Your task to perform on an android device: Go to eBay Image 0: 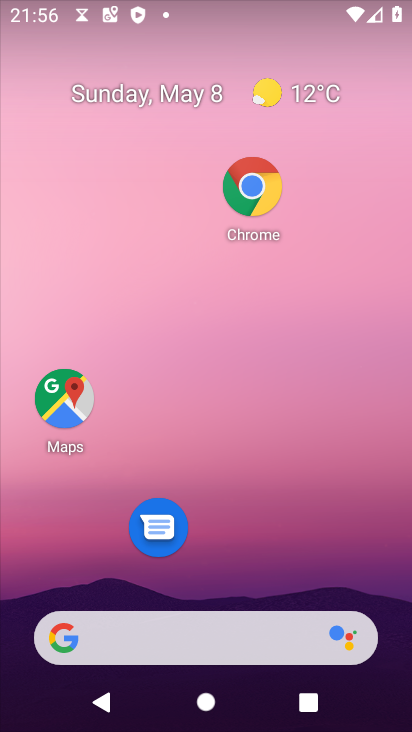
Step 0: drag from (337, 323) to (337, 249)
Your task to perform on an android device: Go to eBay Image 1: 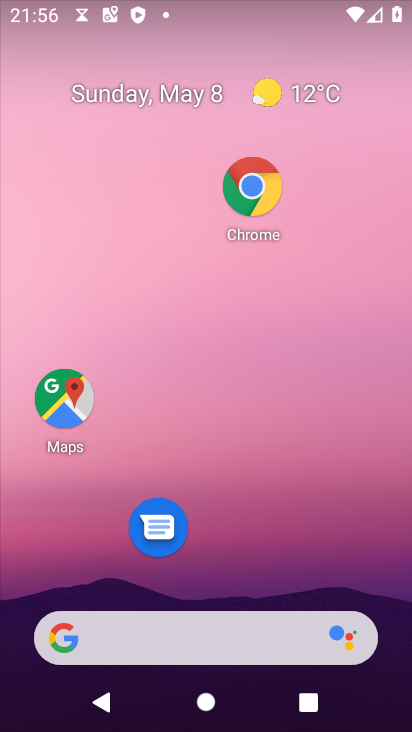
Step 1: drag from (324, 494) to (365, 275)
Your task to perform on an android device: Go to eBay Image 2: 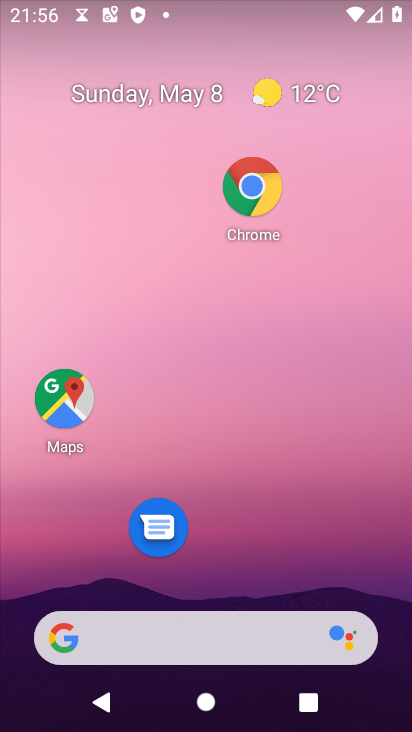
Step 2: drag from (302, 593) to (339, 226)
Your task to perform on an android device: Go to eBay Image 3: 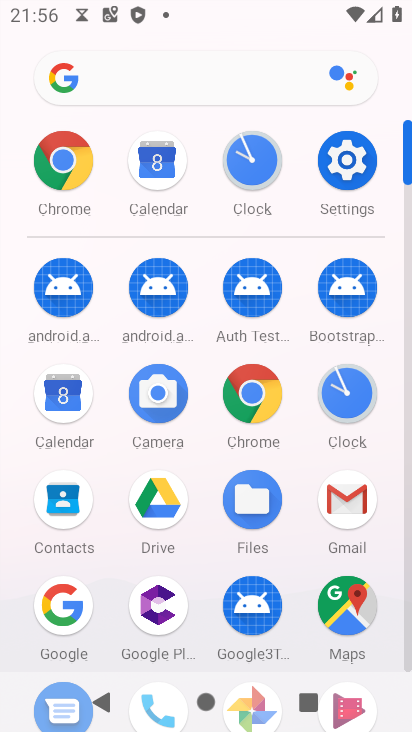
Step 3: click (247, 401)
Your task to perform on an android device: Go to eBay Image 4: 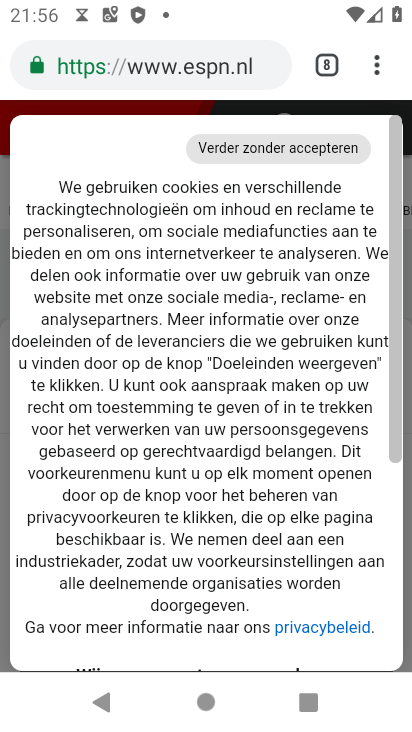
Step 4: click (361, 68)
Your task to perform on an android device: Go to eBay Image 5: 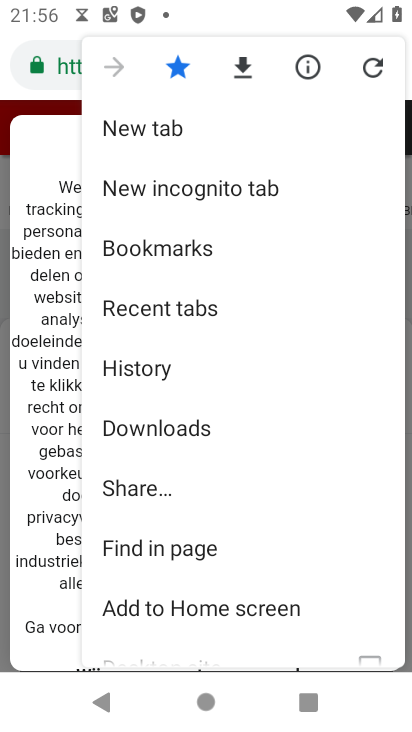
Step 5: click (133, 139)
Your task to perform on an android device: Go to eBay Image 6: 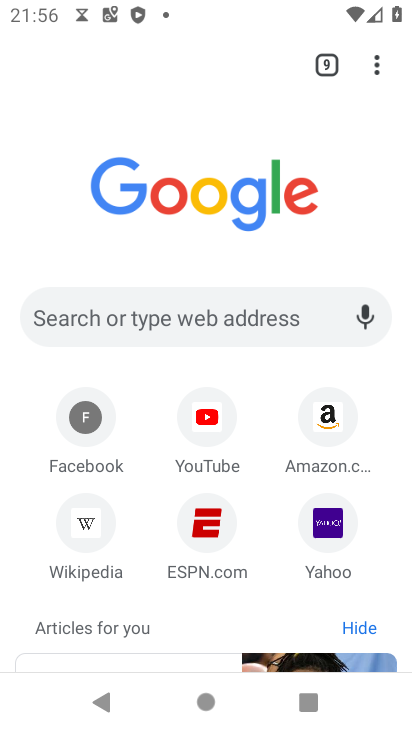
Step 6: click (170, 307)
Your task to perform on an android device: Go to eBay Image 7: 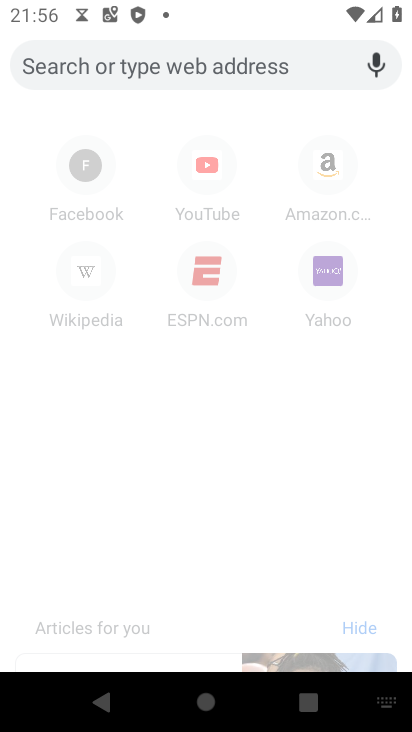
Step 7: type "eBay"
Your task to perform on an android device: Go to eBay Image 8: 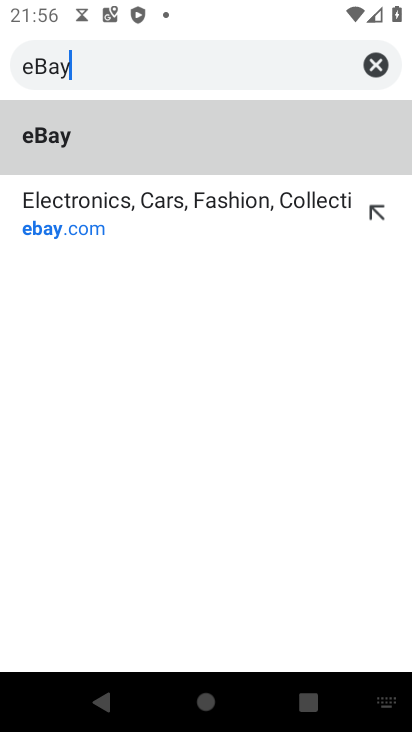
Step 8: click (100, 141)
Your task to perform on an android device: Go to eBay Image 9: 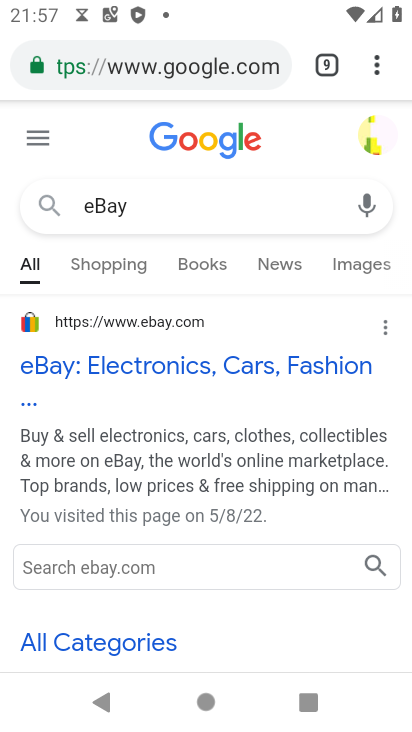
Step 9: task complete